Your task to perform on an android device: toggle show notifications on the lock screen Image 0: 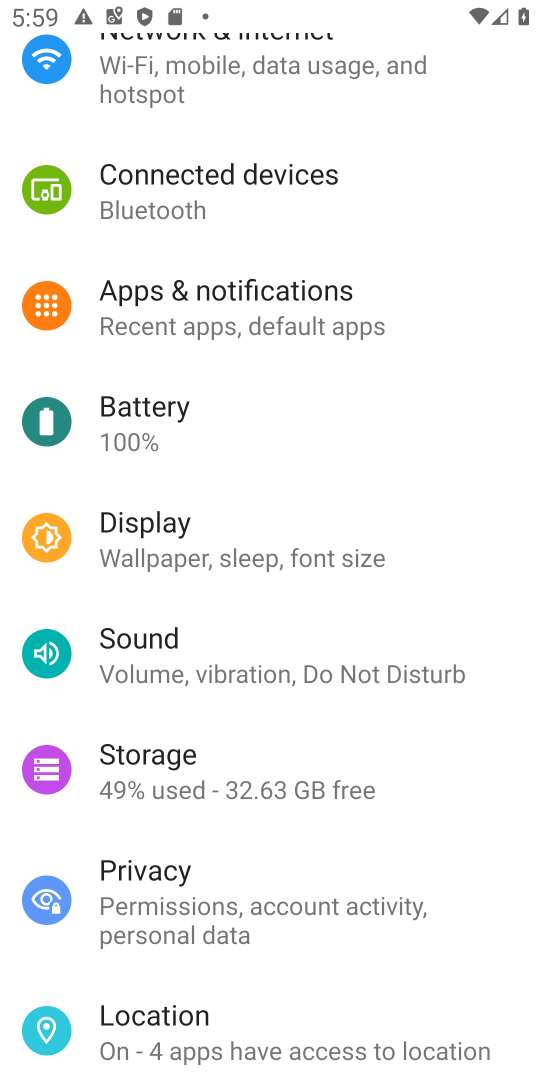
Step 0: click (258, 317)
Your task to perform on an android device: toggle show notifications on the lock screen Image 1: 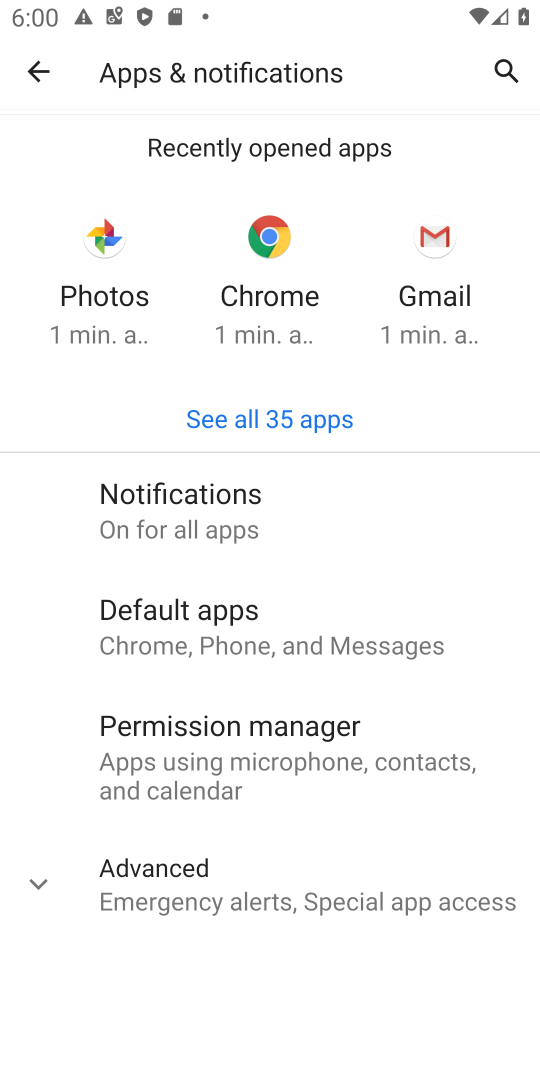
Step 1: click (230, 515)
Your task to perform on an android device: toggle show notifications on the lock screen Image 2: 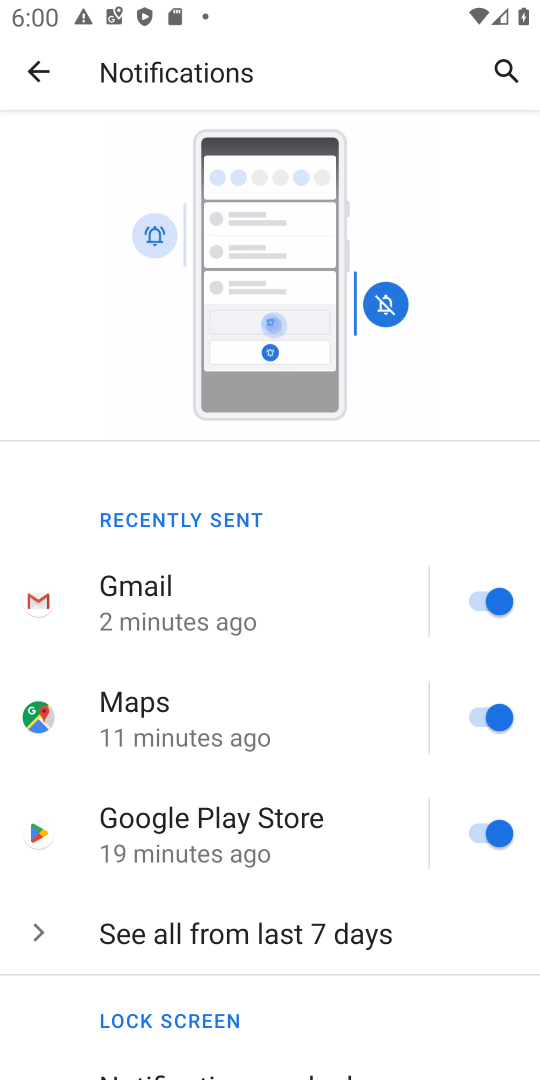
Step 2: drag from (335, 293) to (337, 199)
Your task to perform on an android device: toggle show notifications on the lock screen Image 3: 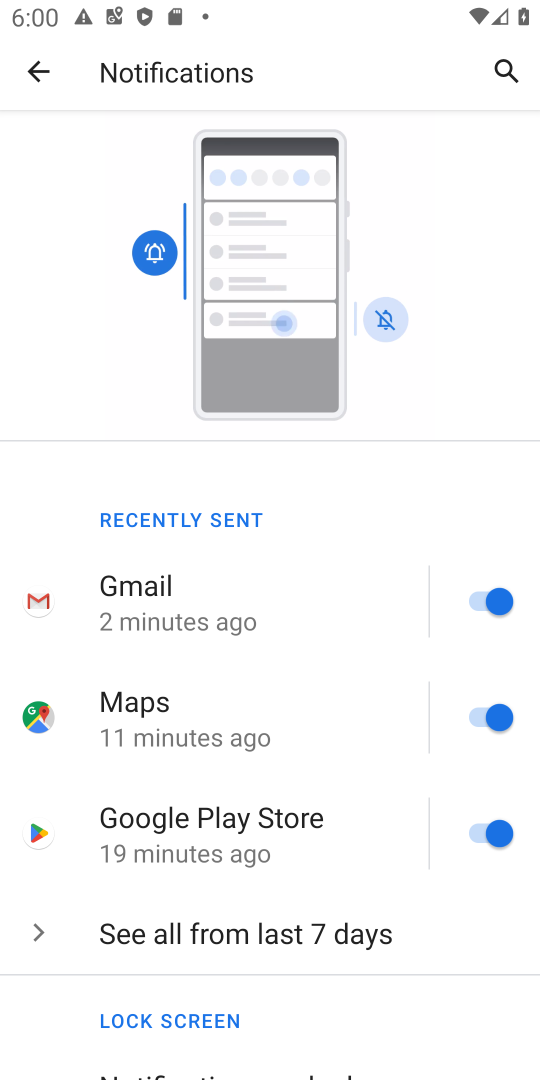
Step 3: drag from (263, 817) to (259, 98)
Your task to perform on an android device: toggle show notifications on the lock screen Image 4: 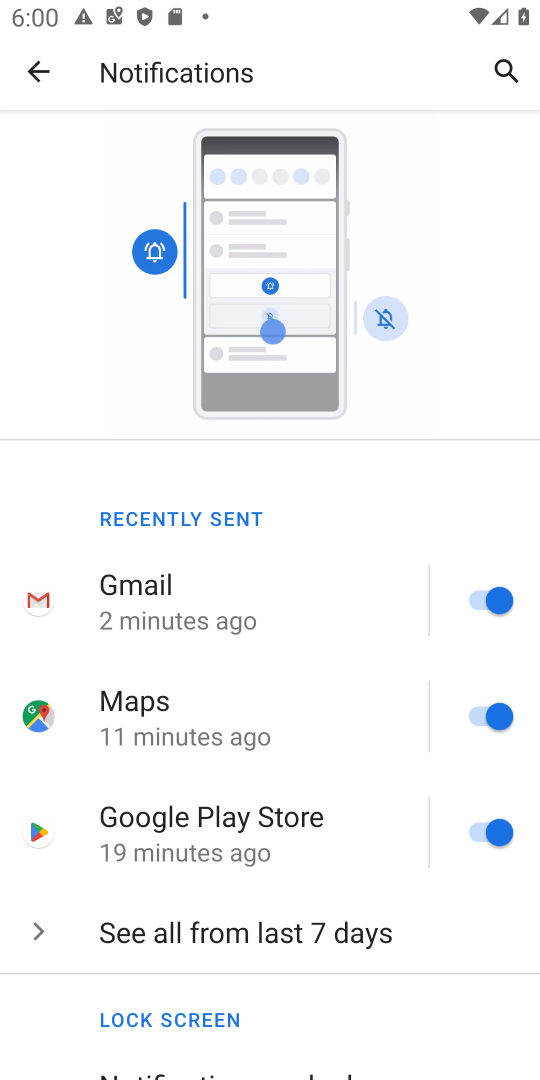
Step 4: drag from (297, 987) to (237, 356)
Your task to perform on an android device: toggle show notifications on the lock screen Image 5: 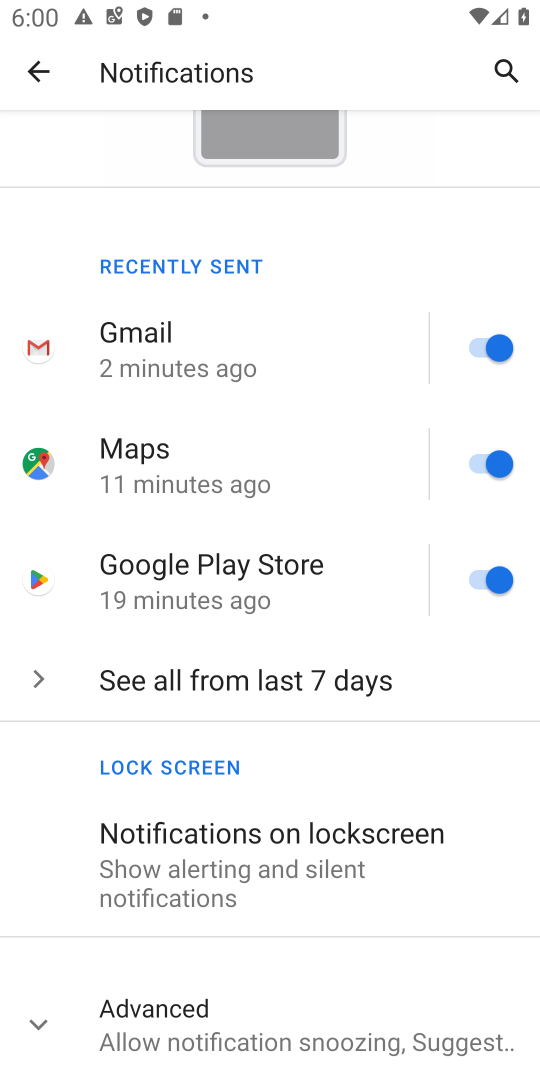
Step 5: click (259, 858)
Your task to perform on an android device: toggle show notifications on the lock screen Image 6: 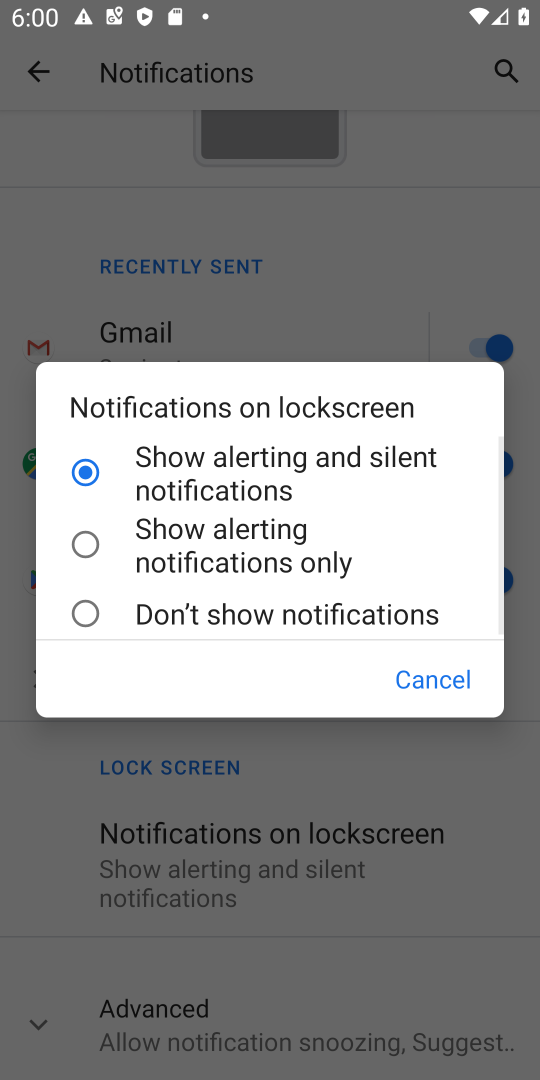
Step 6: click (213, 539)
Your task to perform on an android device: toggle show notifications on the lock screen Image 7: 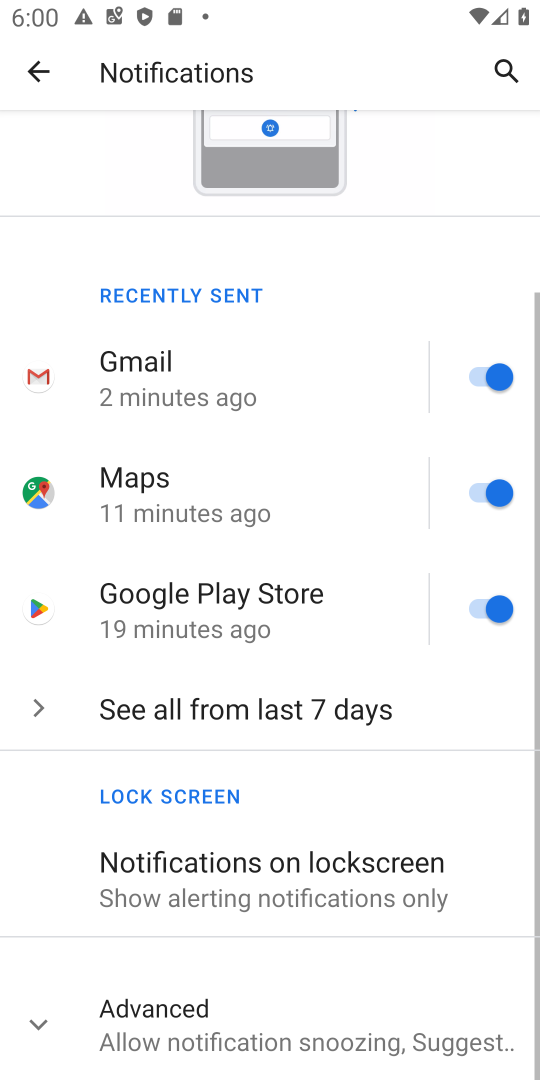
Step 7: task complete